Your task to perform on an android device: change notifications settings Image 0: 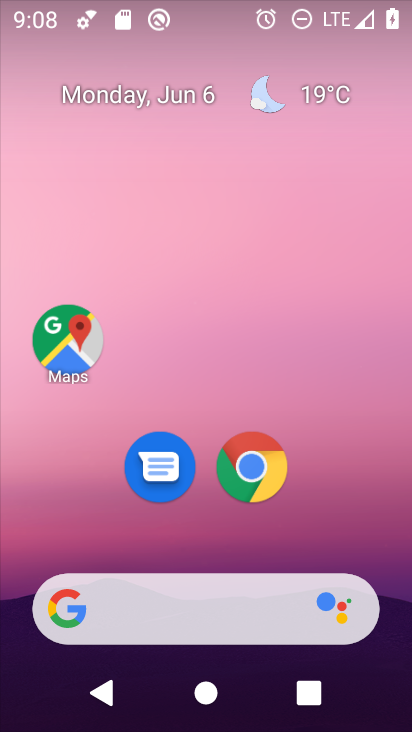
Step 0: drag from (357, 553) to (379, 103)
Your task to perform on an android device: change notifications settings Image 1: 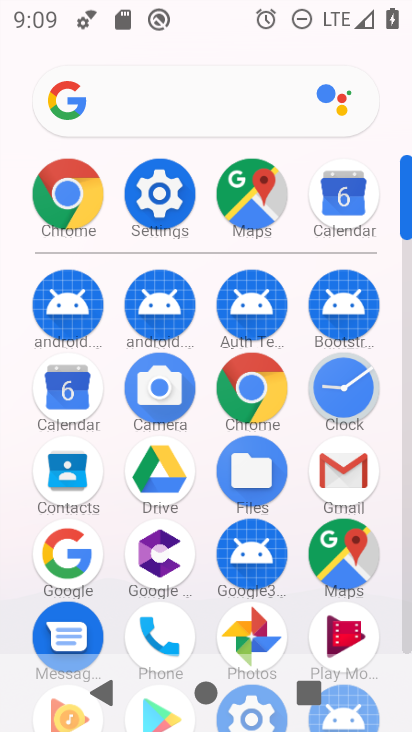
Step 1: click (171, 207)
Your task to perform on an android device: change notifications settings Image 2: 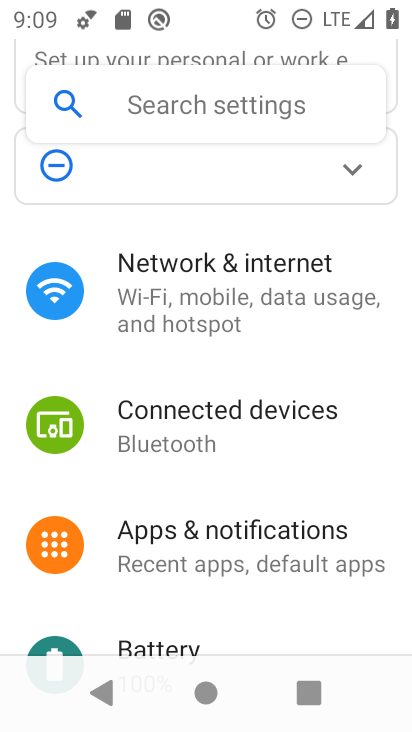
Step 2: drag from (342, 597) to (351, 480)
Your task to perform on an android device: change notifications settings Image 3: 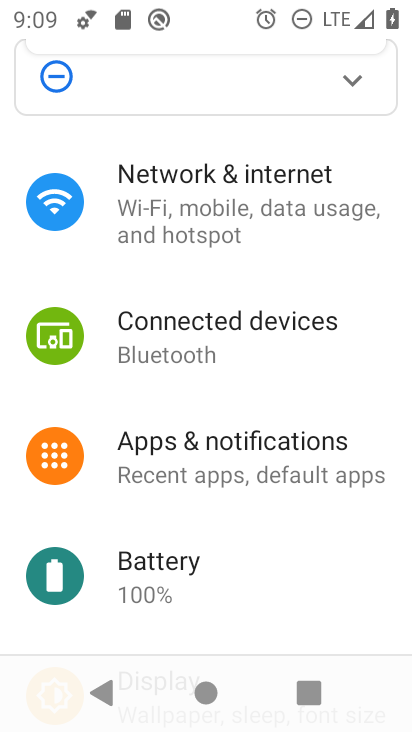
Step 3: drag from (358, 579) to (376, 389)
Your task to perform on an android device: change notifications settings Image 4: 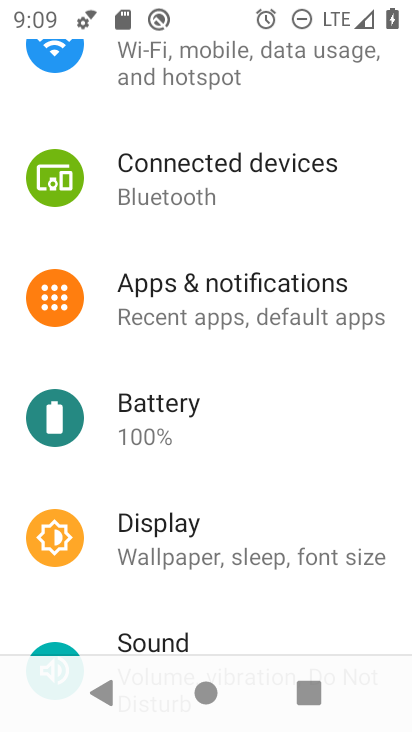
Step 4: click (321, 304)
Your task to perform on an android device: change notifications settings Image 5: 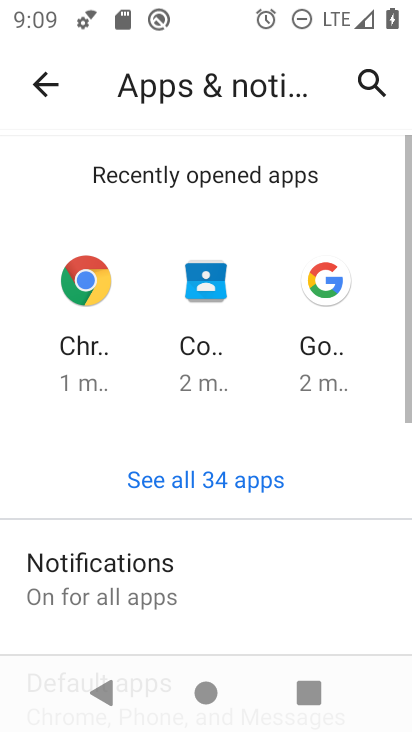
Step 5: drag from (295, 528) to (311, 403)
Your task to perform on an android device: change notifications settings Image 6: 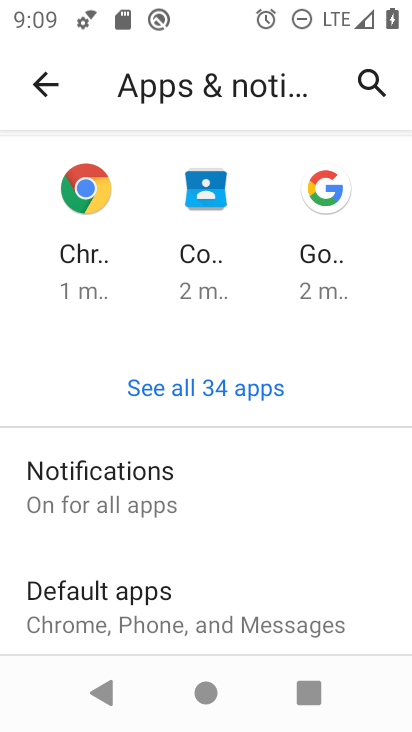
Step 6: drag from (322, 517) to (323, 389)
Your task to perform on an android device: change notifications settings Image 7: 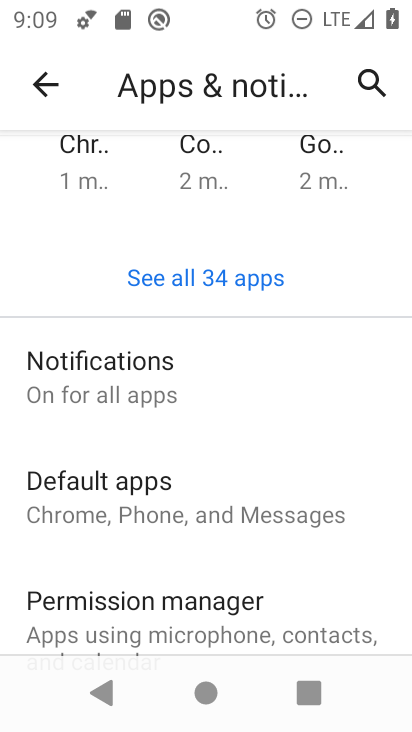
Step 7: click (159, 381)
Your task to perform on an android device: change notifications settings Image 8: 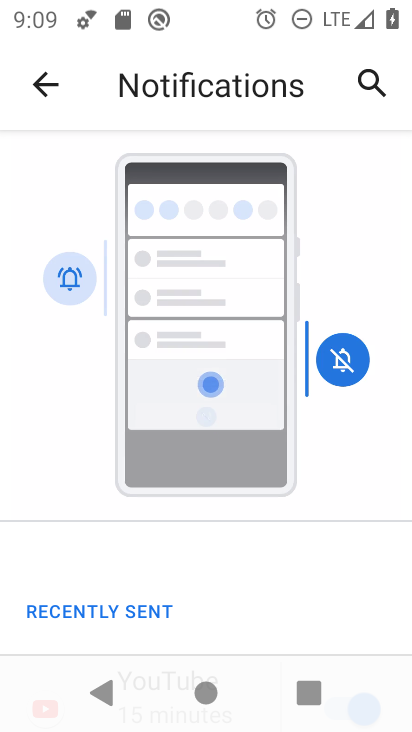
Step 8: drag from (353, 506) to (369, 383)
Your task to perform on an android device: change notifications settings Image 9: 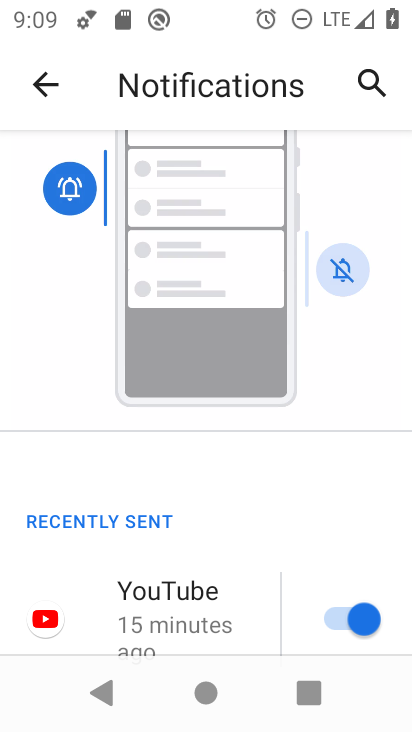
Step 9: drag from (328, 529) to (328, 366)
Your task to perform on an android device: change notifications settings Image 10: 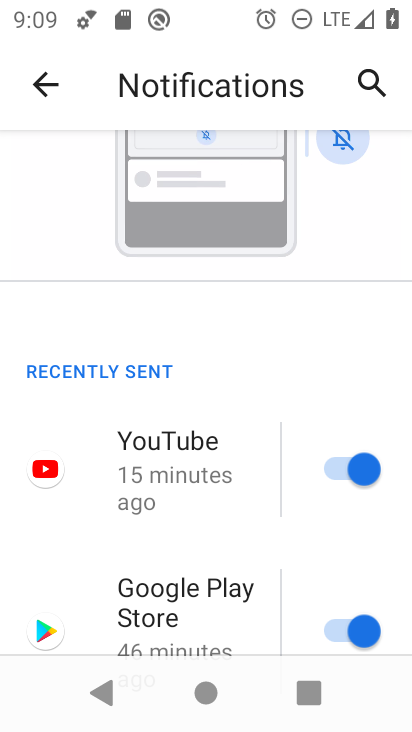
Step 10: drag from (318, 543) to (312, 284)
Your task to perform on an android device: change notifications settings Image 11: 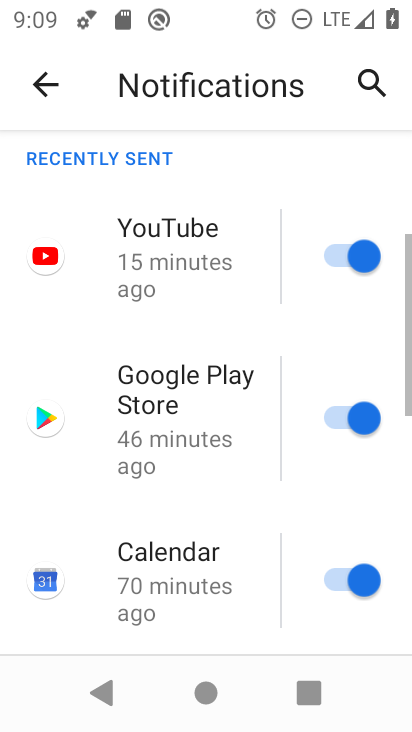
Step 11: click (354, 264)
Your task to perform on an android device: change notifications settings Image 12: 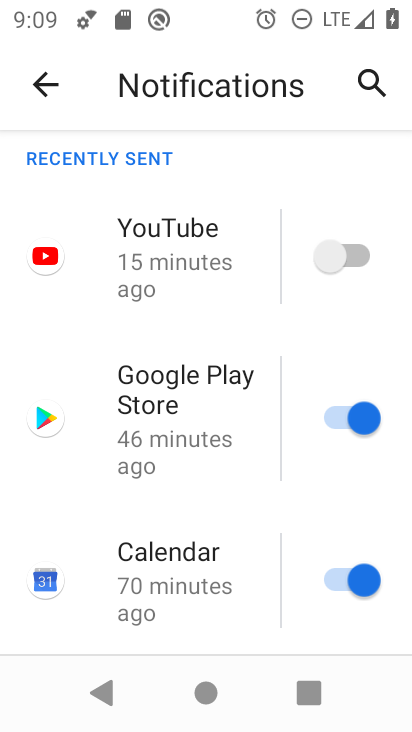
Step 12: click (355, 420)
Your task to perform on an android device: change notifications settings Image 13: 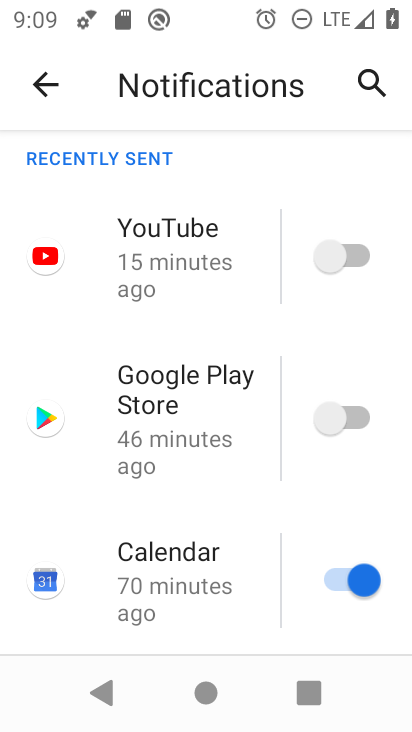
Step 13: click (348, 585)
Your task to perform on an android device: change notifications settings Image 14: 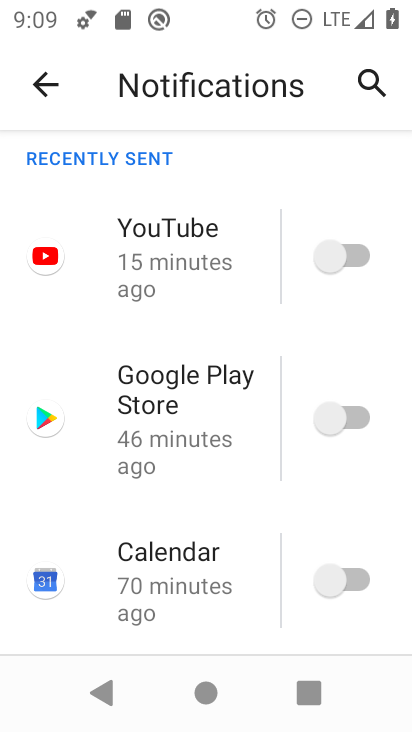
Step 14: task complete